Your task to perform on an android device: see tabs open on other devices in the chrome app Image 0: 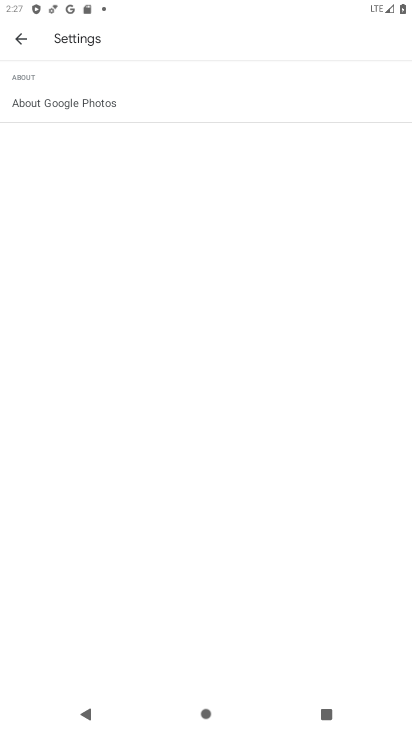
Step 0: press home button
Your task to perform on an android device: see tabs open on other devices in the chrome app Image 1: 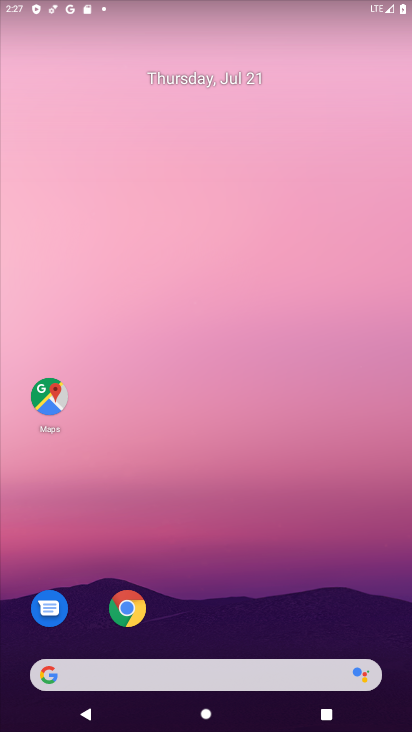
Step 1: click (129, 614)
Your task to perform on an android device: see tabs open on other devices in the chrome app Image 2: 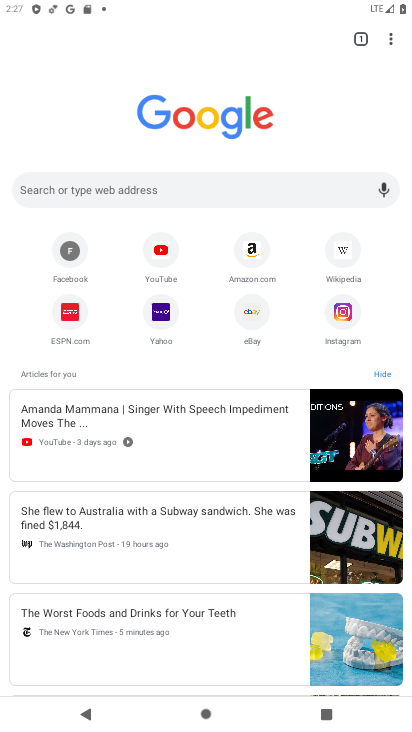
Step 2: click (358, 40)
Your task to perform on an android device: see tabs open on other devices in the chrome app Image 3: 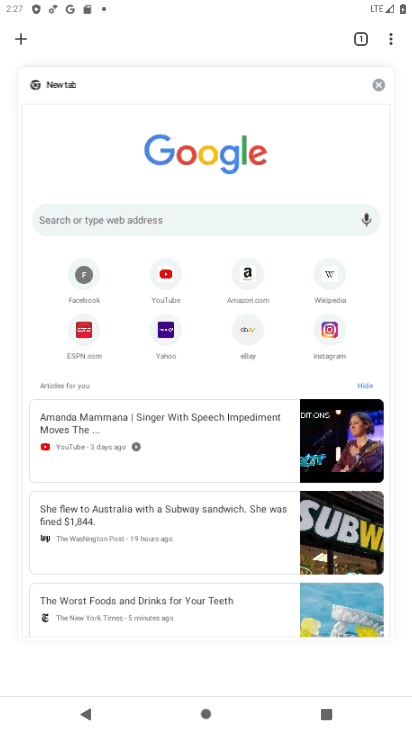
Step 3: task complete